Your task to perform on an android device: turn on airplane mode Image 0: 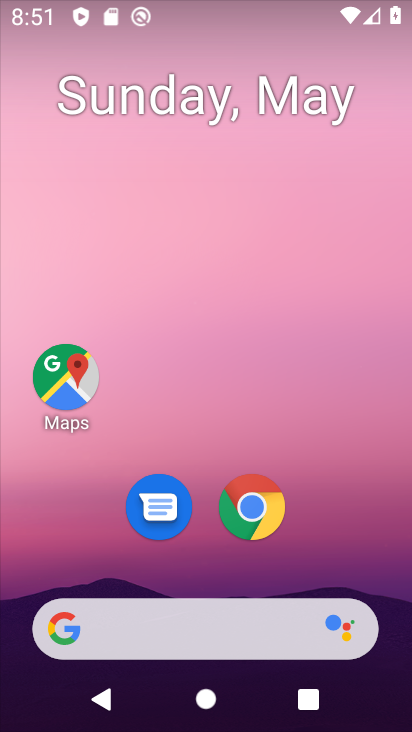
Step 0: drag from (198, 577) to (220, 62)
Your task to perform on an android device: turn on airplane mode Image 1: 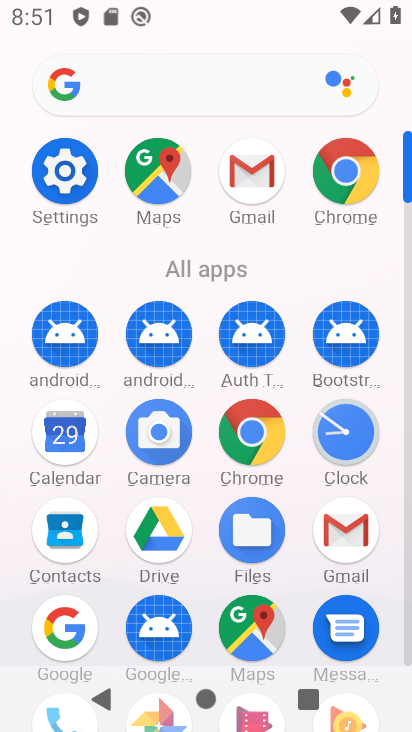
Step 1: click (67, 184)
Your task to perform on an android device: turn on airplane mode Image 2: 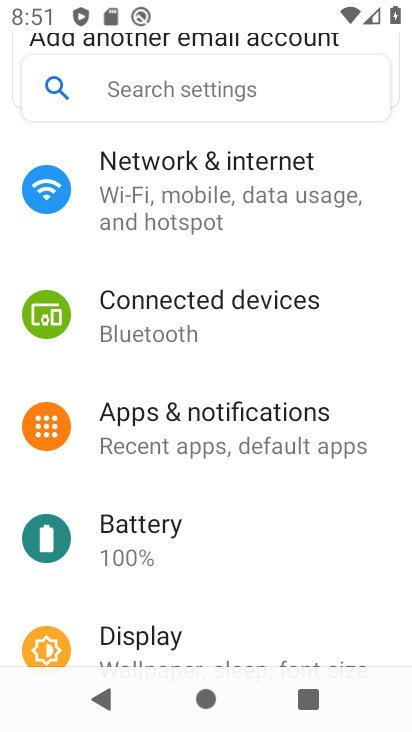
Step 2: click (238, 204)
Your task to perform on an android device: turn on airplane mode Image 3: 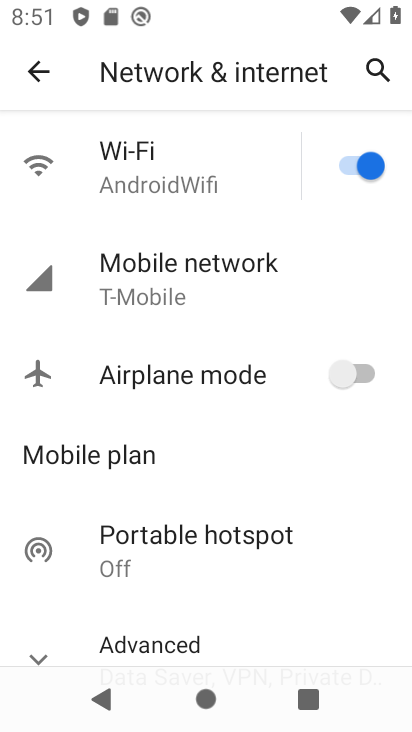
Step 3: click (379, 358)
Your task to perform on an android device: turn on airplane mode Image 4: 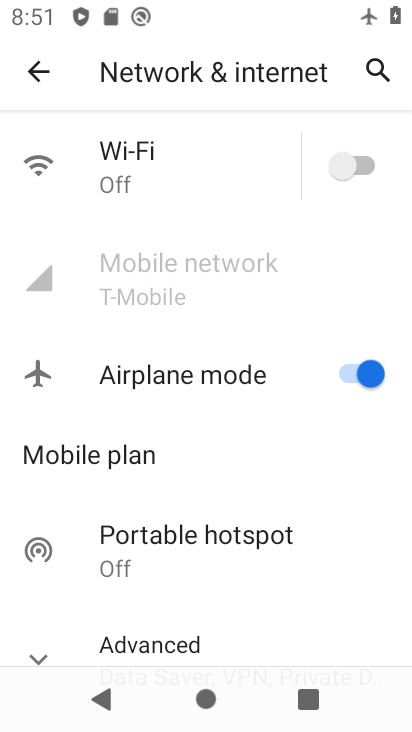
Step 4: task complete